Your task to perform on an android device: check android version Image 0: 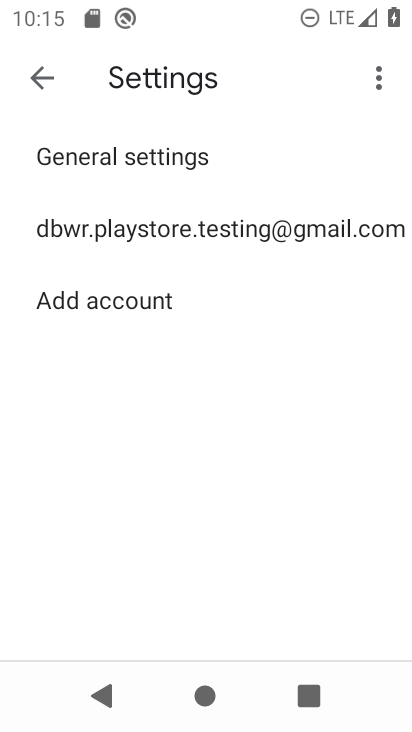
Step 0: press home button
Your task to perform on an android device: check android version Image 1: 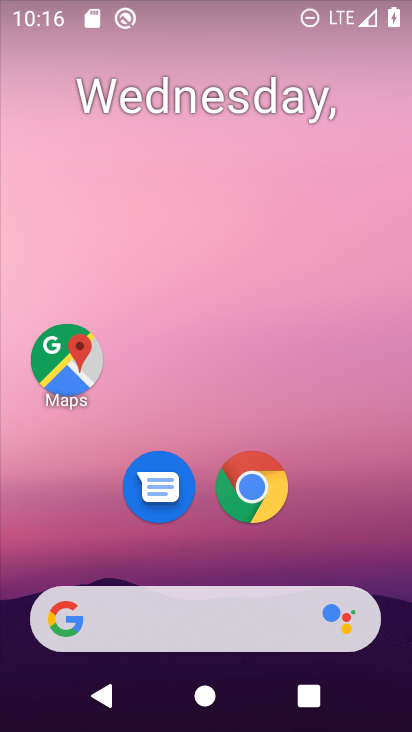
Step 1: drag from (317, 539) to (237, 95)
Your task to perform on an android device: check android version Image 2: 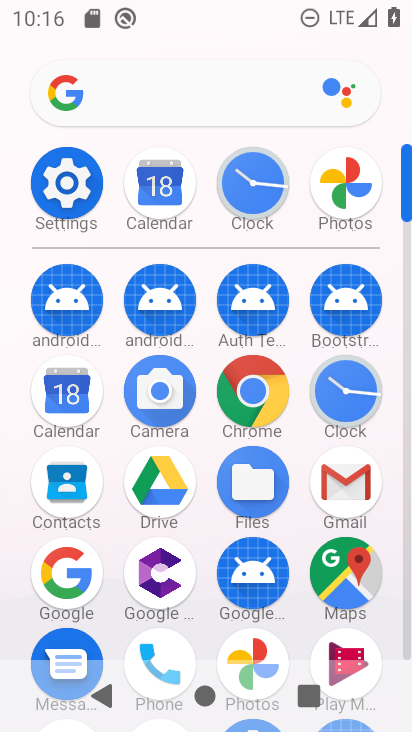
Step 2: click (67, 182)
Your task to perform on an android device: check android version Image 3: 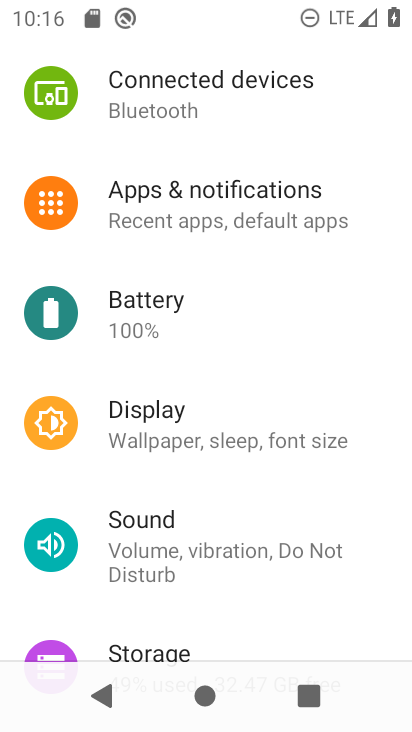
Step 3: drag from (243, 479) to (199, 277)
Your task to perform on an android device: check android version Image 4: 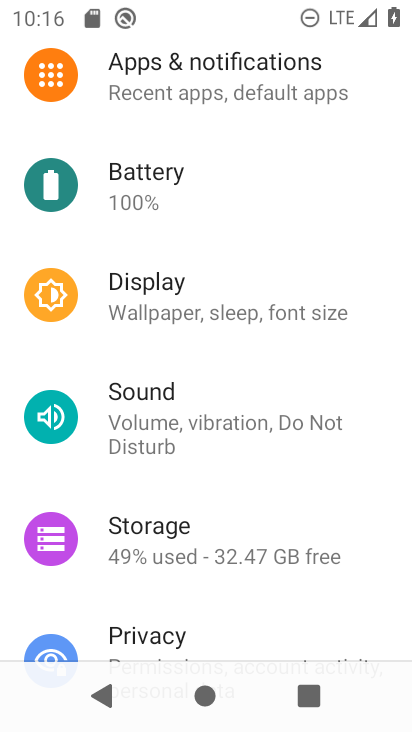
Step 4: drag from (207, 586) to (191, 228)
Your task to perform on an android device: check android version Image 5: 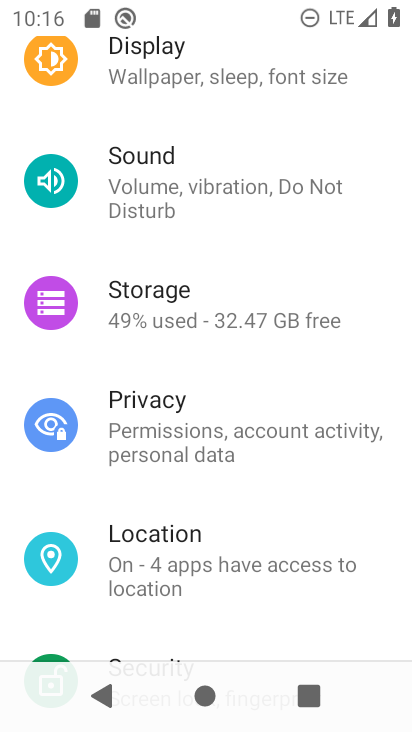
Step 5: drag from (232, 471) to (241, 62)
Your task to perform on an android device: check android version Image 6: 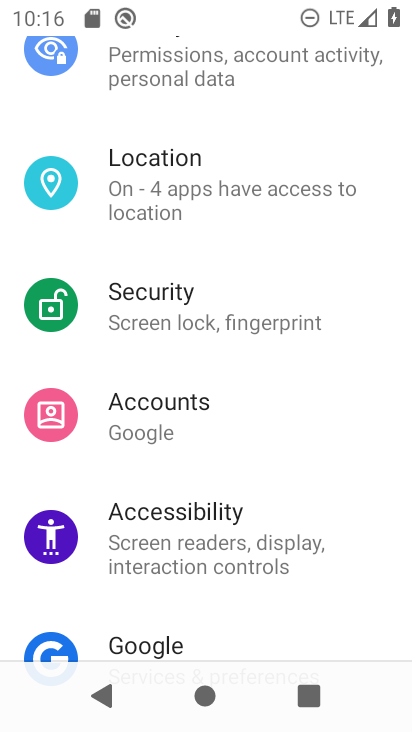
Step 6: drag from (202, 600) to (125, 228)
Your task to perform on an android device: check android version Image 7: 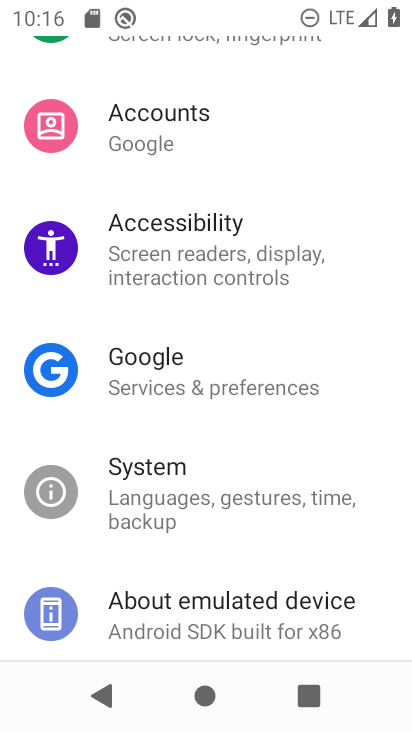
Step 7: drag from (189, 565) to (188, 247)
Your task to perform on an android device: check android version Image 8: 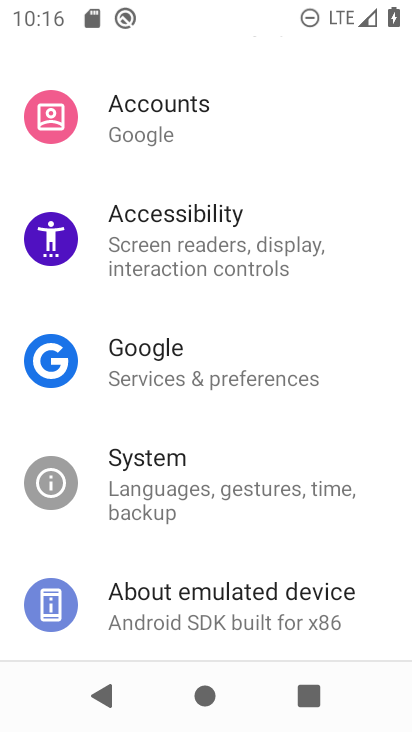
Step 8: click (172, 596)
Your task to perform on an android device: check android version Image 9: 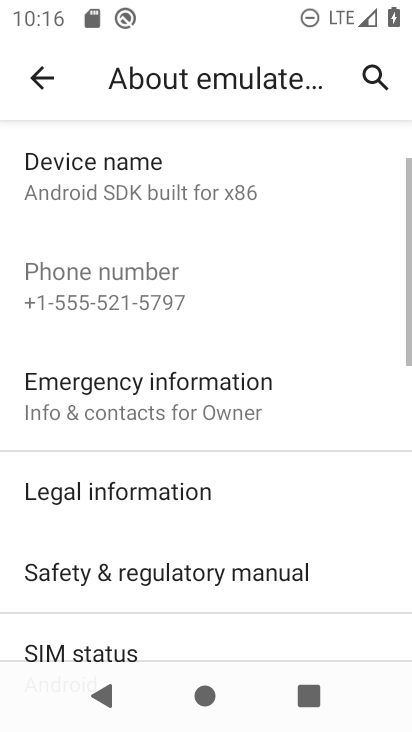
Step 9: task complete